Your task to perform on an android device: Open Android settings Image 0: 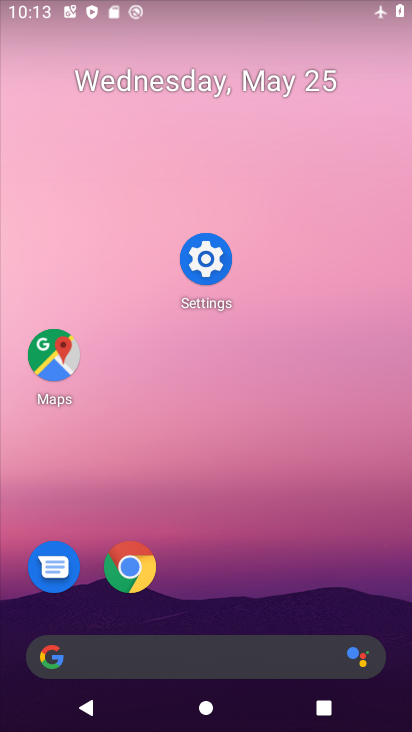
Step 0: drag from (319, 589) to (409, 27)
Your task to perform on an android device: Open Android settings Image 1: 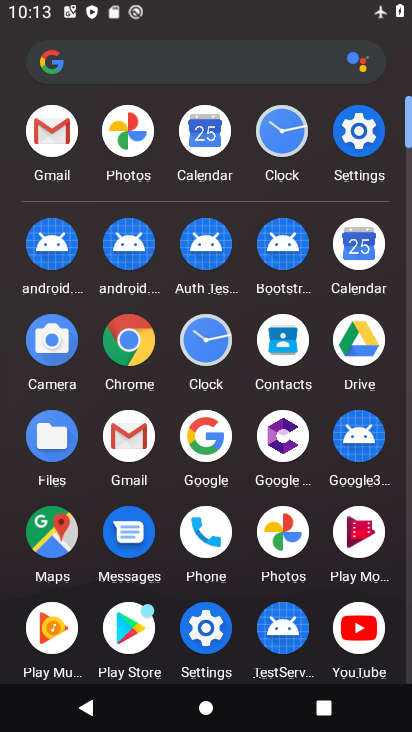
Step 1: click (376, 139)
Your task to perform on an android device: Open Android settings Image 2: 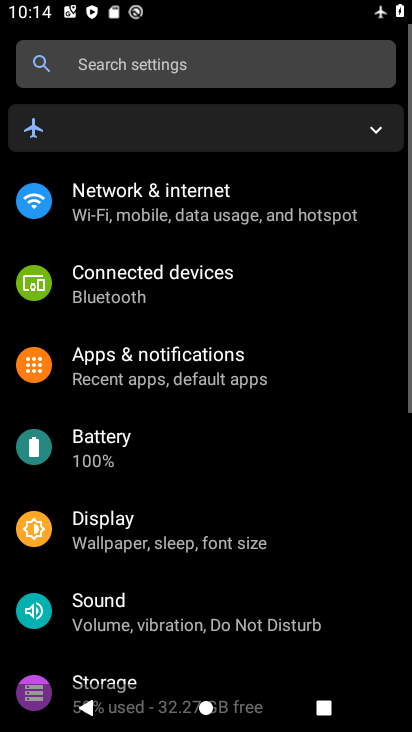
Step 2: task complete